Your task to perform on an android device: Go to accessibility settings Image 0: 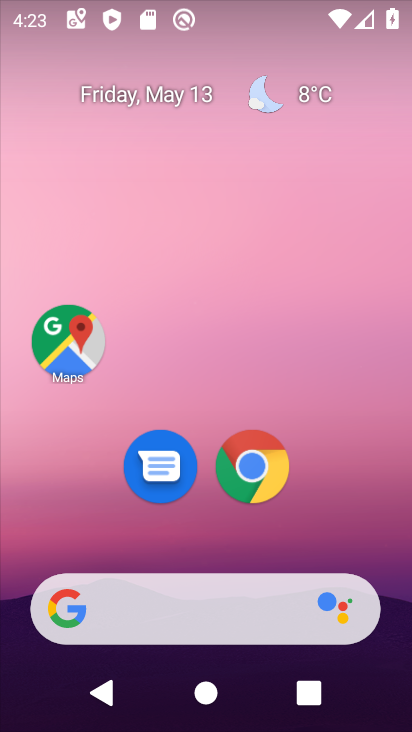
Step 0: drag from (395, 613) to (284, 62)
Your task to perform on an android device: Go to accessibility settings Image 1: 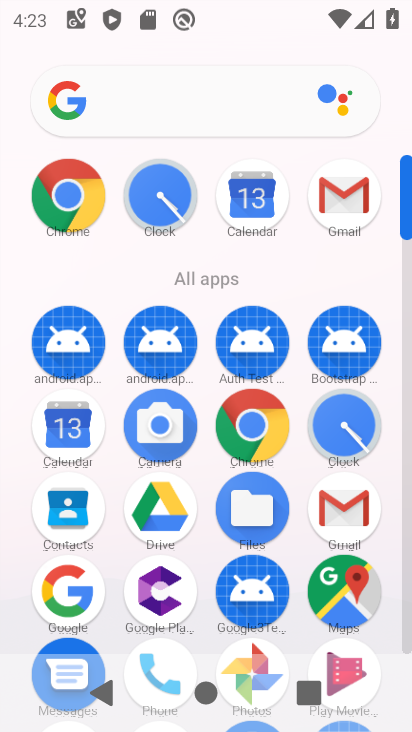
Step 1: click (403, 643)
Your task to perform on an android device: Go to accessibility settings Image 2: 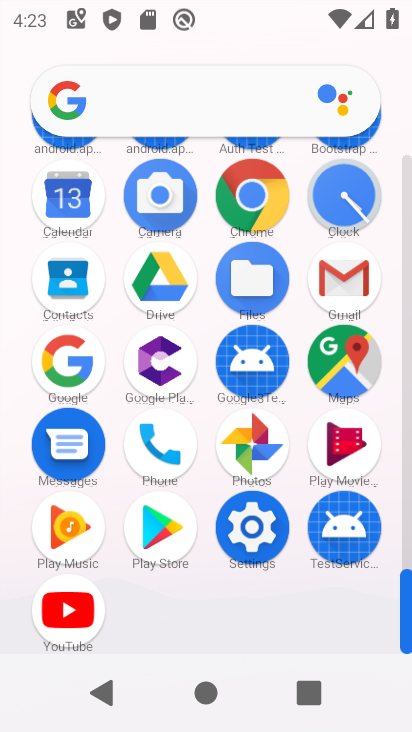
Step 2: click (252, 517)
Your task to perform on an android device: Go to accessibility settings Image 3: 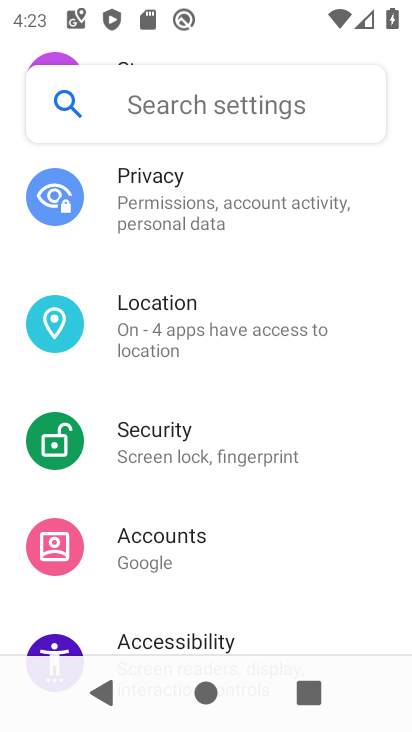
Step 3: drag from (328, 620) to (351, 255)
Your task to perform on an android device: Go to accessibility settings Image 4: 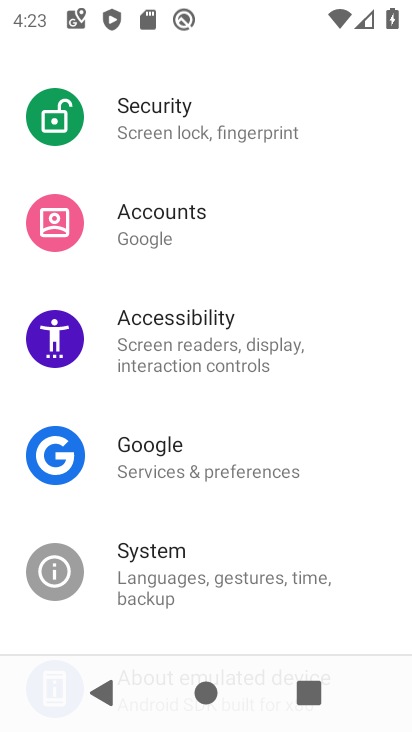
Step 4: click (150, 336)
Your task to perform on an android device: Go to accessibility settings Image 5: 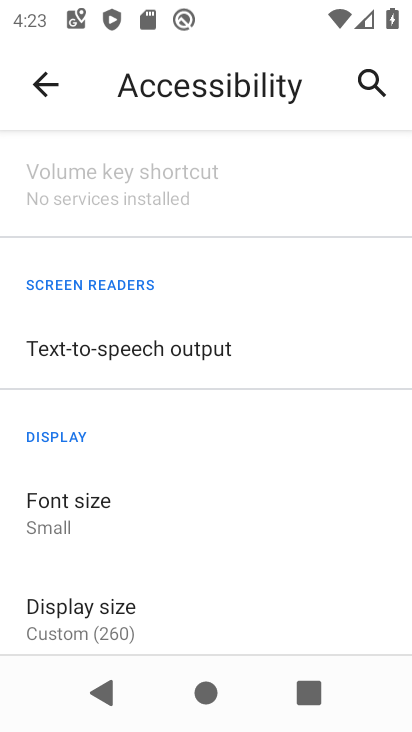
Step 5: task complete